Your task to perform on an android device: turn pop-ups on in chrome Image 0: 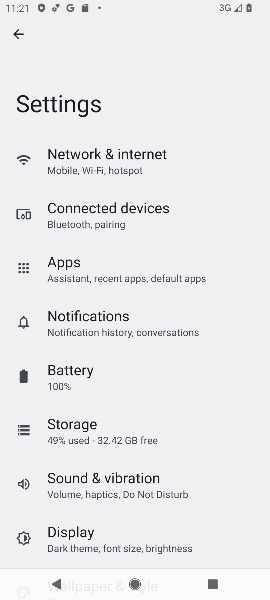
Step 0: press back button
Your task to perform on an android device: turn pop-ups on in chrome Image 1: 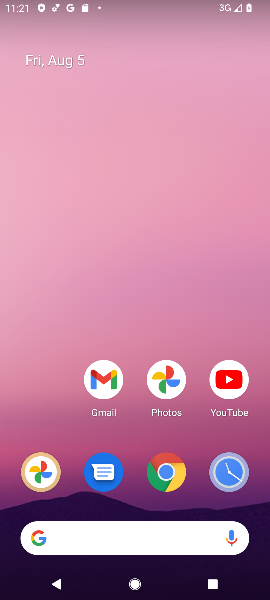
Step 1: click (172, 486)
Your task to perform on an android device: turn pop-ups on in chrome Image 2: 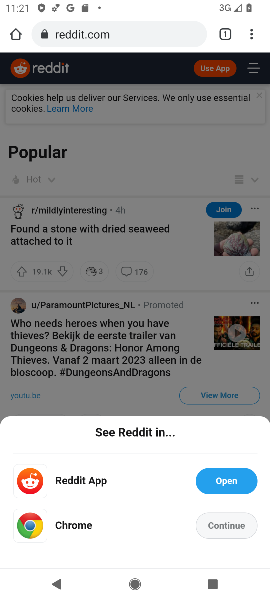
Step 2: click (259, 39)
Your task to perform on an android device: turn pop-ups on in chrome Image 3: 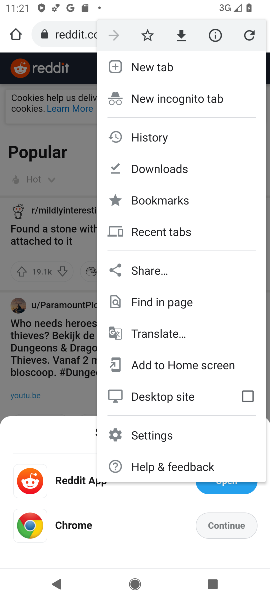
Step 3: click (184, 431)
Your task to perform on an android device: turn pop-ups on in chrome Image 4: 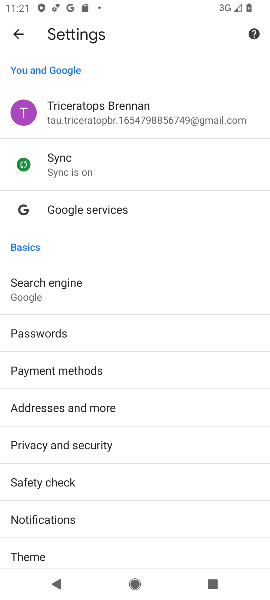
Step 4: drag from (110, 547) to (90, 129)
Your task to perform on an android device: turn pop-ups on in chrome Image 5: 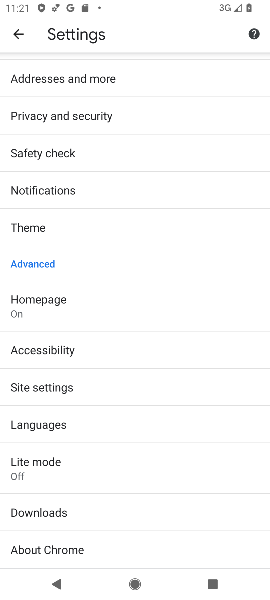
Step 5: click (95, 394)
Your task to perform on an android device: turn pop-ups on in chrome Image 6: 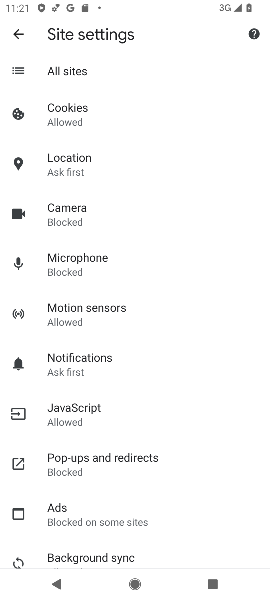
Step 6: click (99, 456)
Your task to perform on an android device: turn pop-ups on in chrome Image 7: 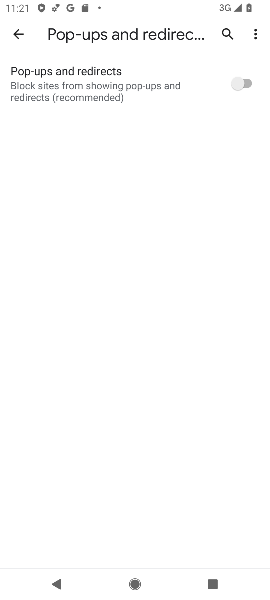
Step 7: click (244, 80)
Your task to perform on an android device: turn pop-ups on in chrome Image 8: 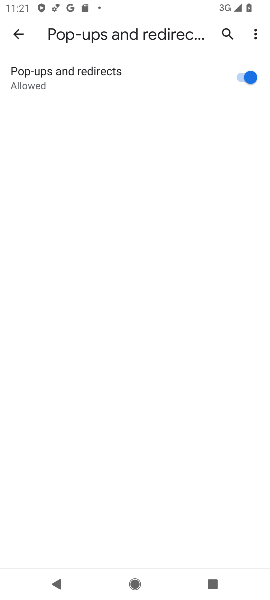
Step 8: task complete